Your task to perform on an android device: Search for sushi restaurants on Maps Image 0: 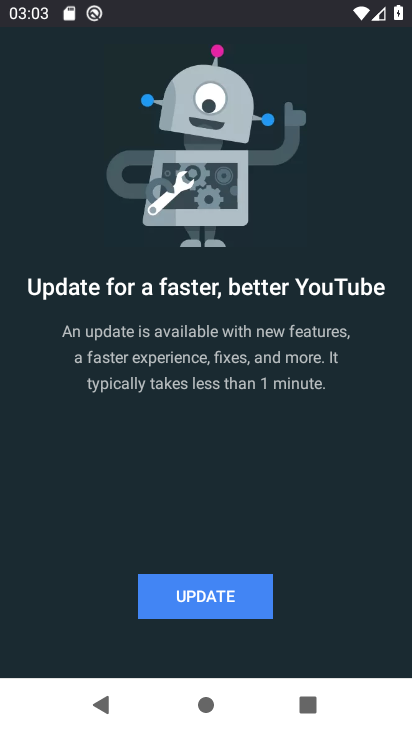
Step 0: press home button
Your task to perform on an android device: Search for sushi restaurants on Maps Image 1: 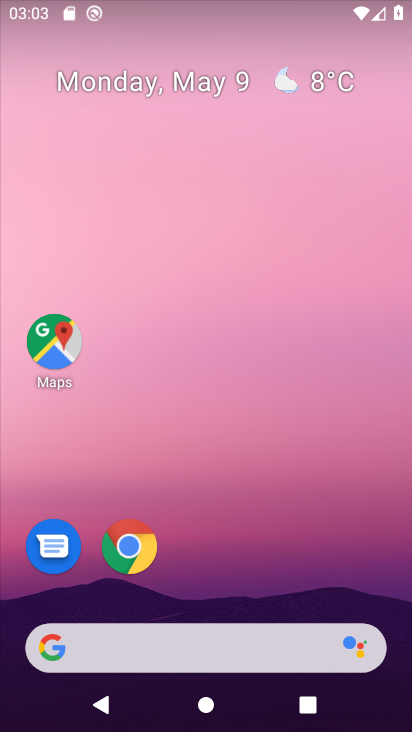
Step 1: click (62, 342)
Your task to perform on an android device: Search for sushi restaurants on Maps Image 2: 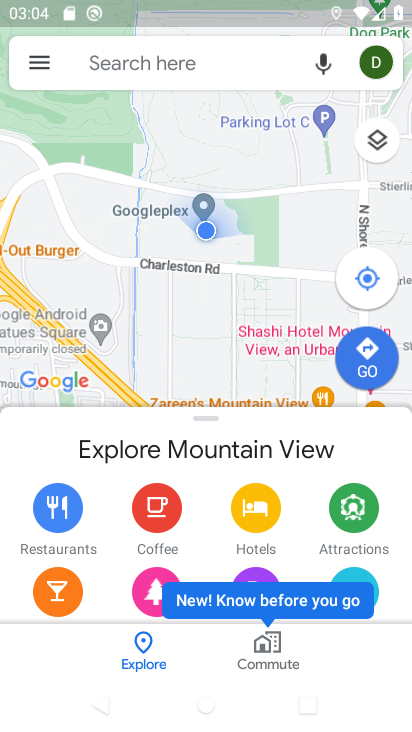
Step 2: click (240, 61)
Your task to perform on an android device: Search for sushi restaurants on Maps Image 3: 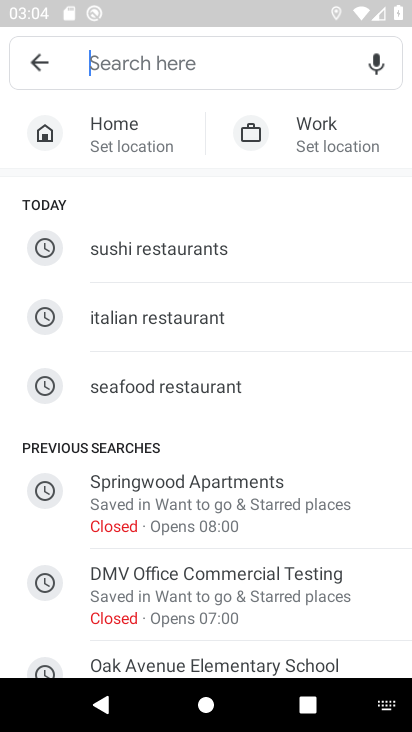
Step 3: click (174, 239)
Your task to perform on an android device: Search for sushi restaurants on Maps Image 4: 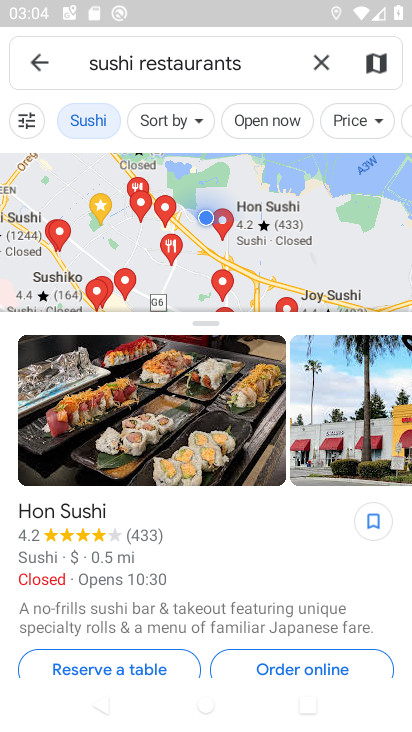
Step 4: drag from (295, 574) to (280, 166)
Your task to perform on an android device: Search for sushi restaurants on Maps Image 5: 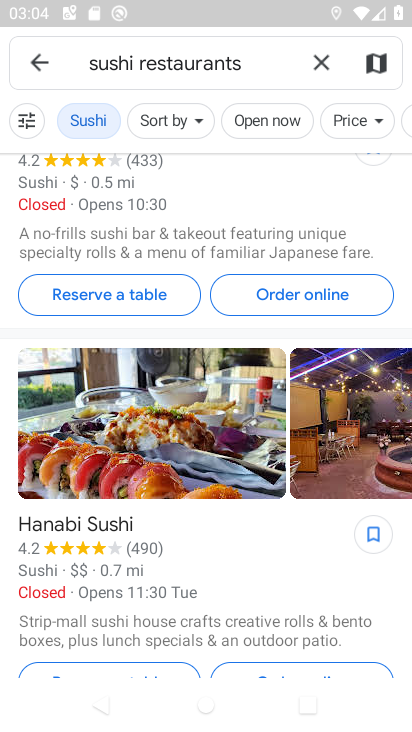
Step 5: drag from (226, 562) to (242, 208)
Your task to perform on an android device: Search for sushi restaurants on Maps Image 6: 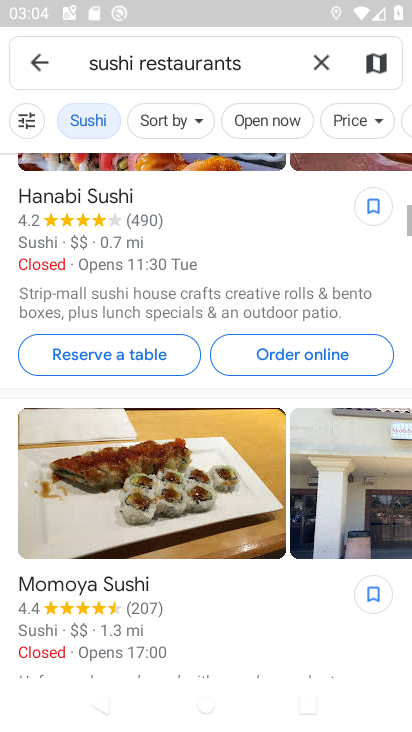
Step 6: drag from (212, 613) to (247, 253)
Your task to perform on an android device: Search for sushi restaurants on Maps Image 7: 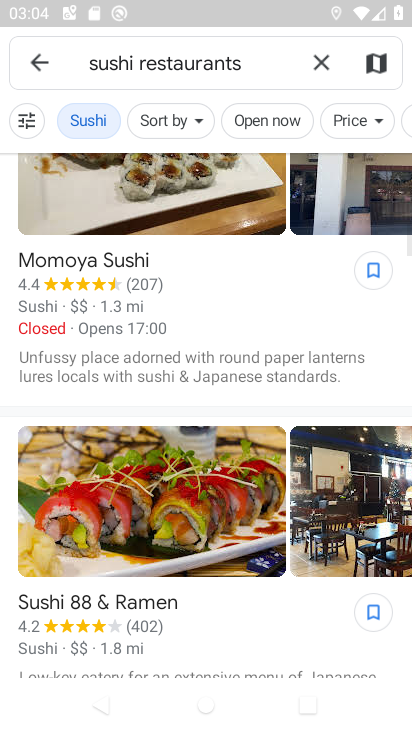
Step 7: click (140, 618)
Your task to perform on an android device: Search for sushi restaurants on Maps Image 8: 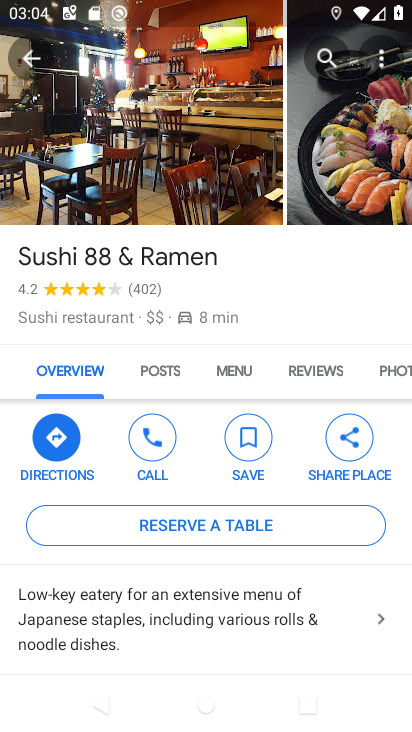
Step 8: task complete